Your task to perform on an android device: empty trash in google photos Image 0: 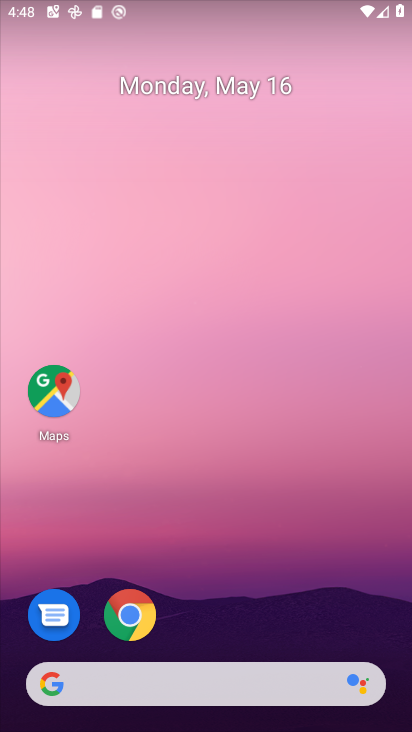
Step 0: drag from (221, 631) to (262, 196)
Your task to perform on an android device: empty trash in google photos Image 1: 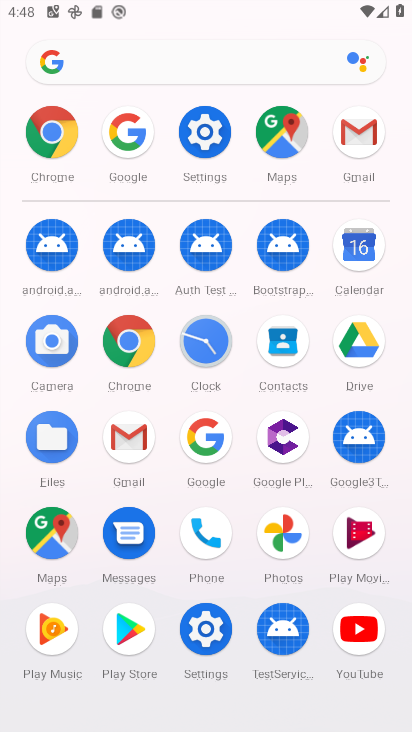
Step 1: click (283, 527)
Your task to perform on an android device: empty trash in google photos Image 2: 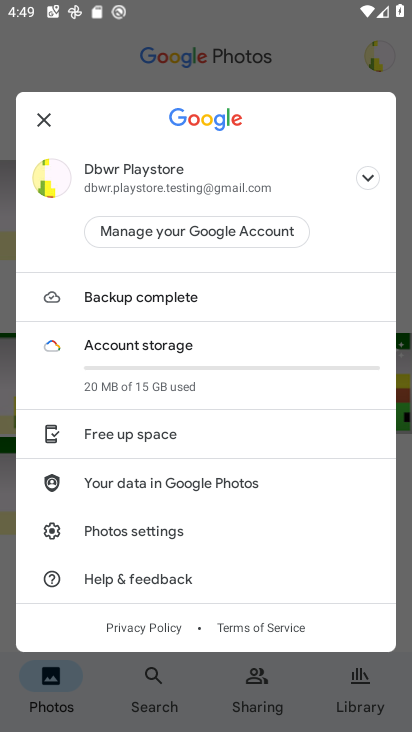
Step 2: click (43, 124)
Your task to perform on an android device: empty trash in google photos Image 3: 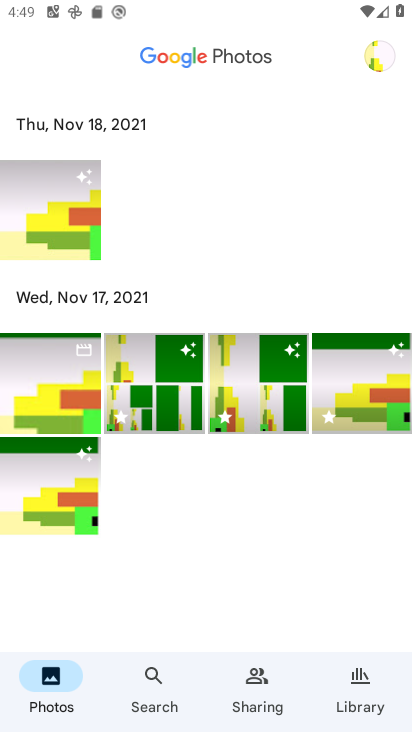
Step 3: click (357, 686)
Your task to perform on an android device: empty trash in google photos Image 4: 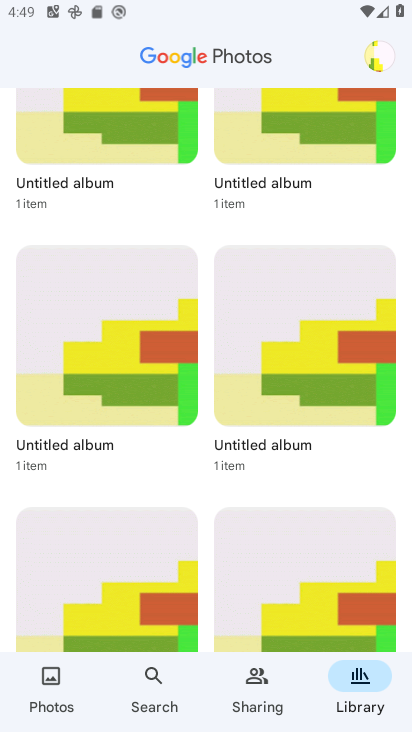
Step 4: drag from (255, 296) to (173, 727)
Your task to perform on an android device: empty trash in google photos Image 5: 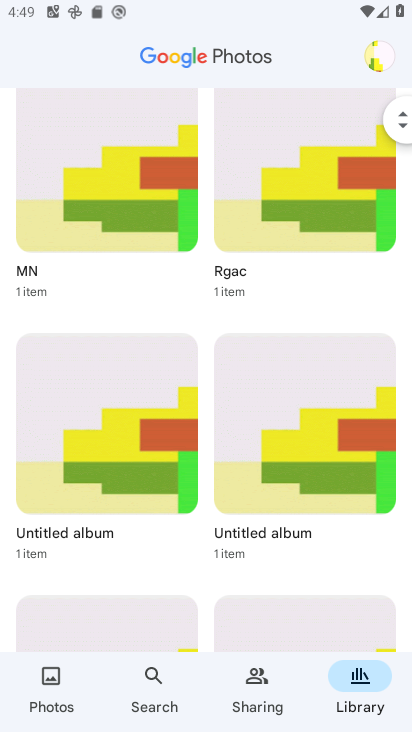
Step 5: drag from (322, 191) to (163, 731)
Your task to perform on an android device: empty trash in google photos Image 6: 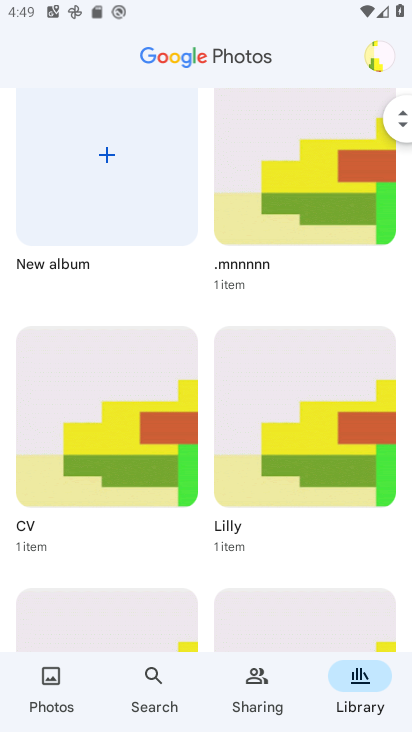
Step 6: drag from (308, 273) to (180, 711)
Your task to perform on an android device: empty trash in google photos Image 7: 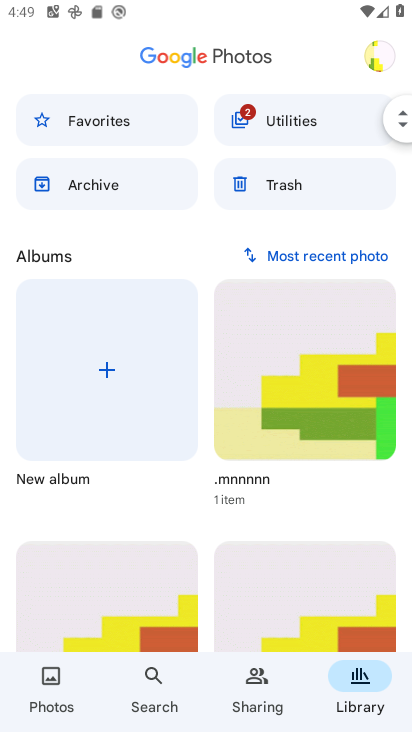
Step 7: click (272, 194)
Your task to perform on an android device: empty trash in google photos Image 8: 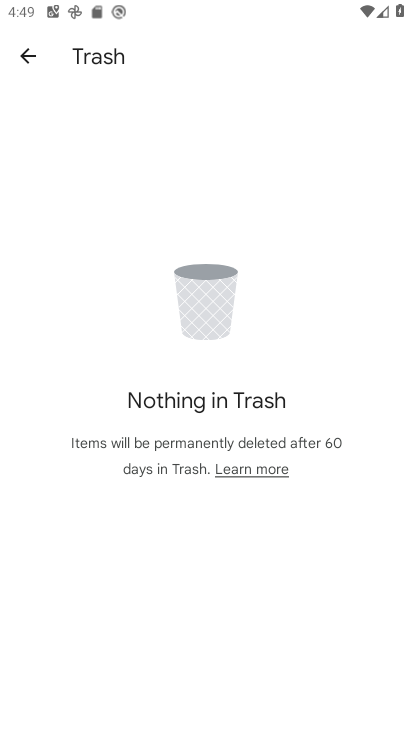
Step 8: task complete